Your task to perform on an android device: open app "Spotify" Image 0: 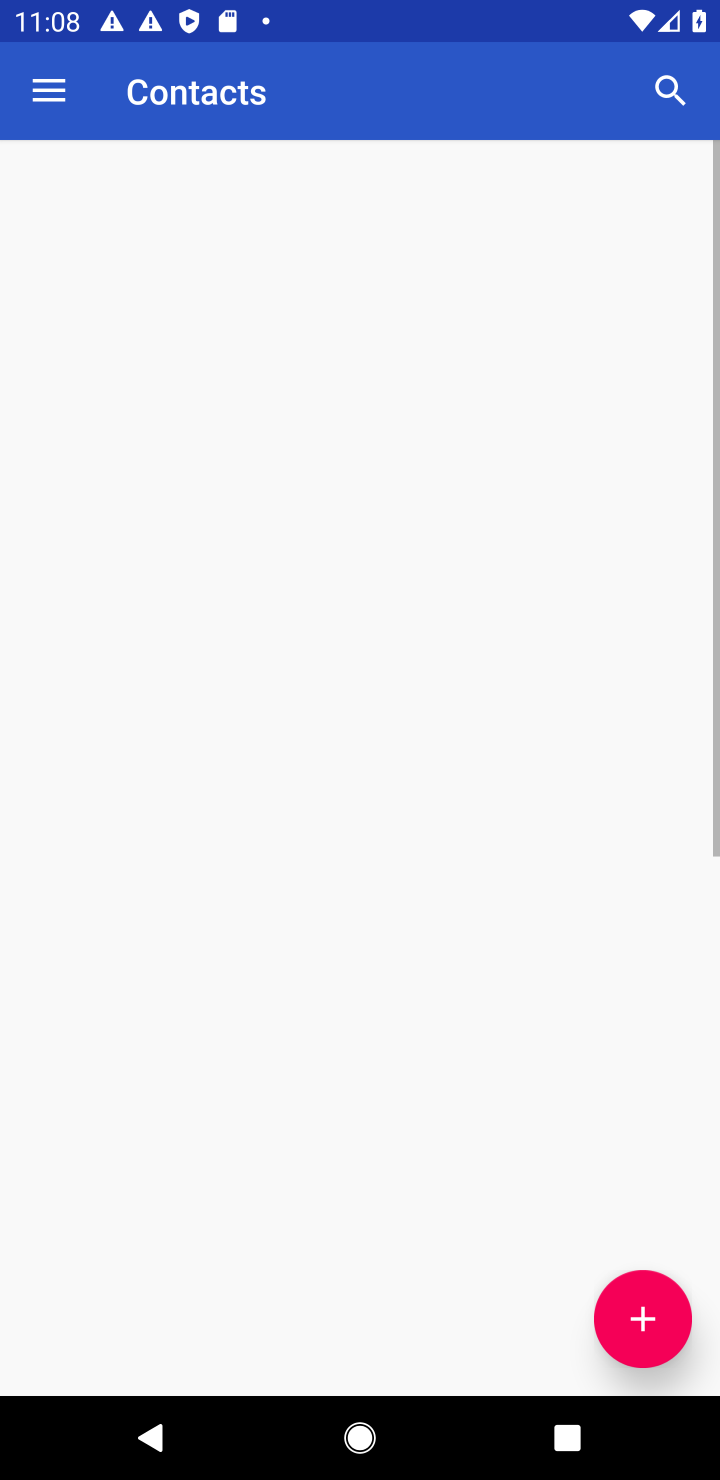
Step 0: press home button
Your task to perform on an android device: open app "Spotify" Image 1: 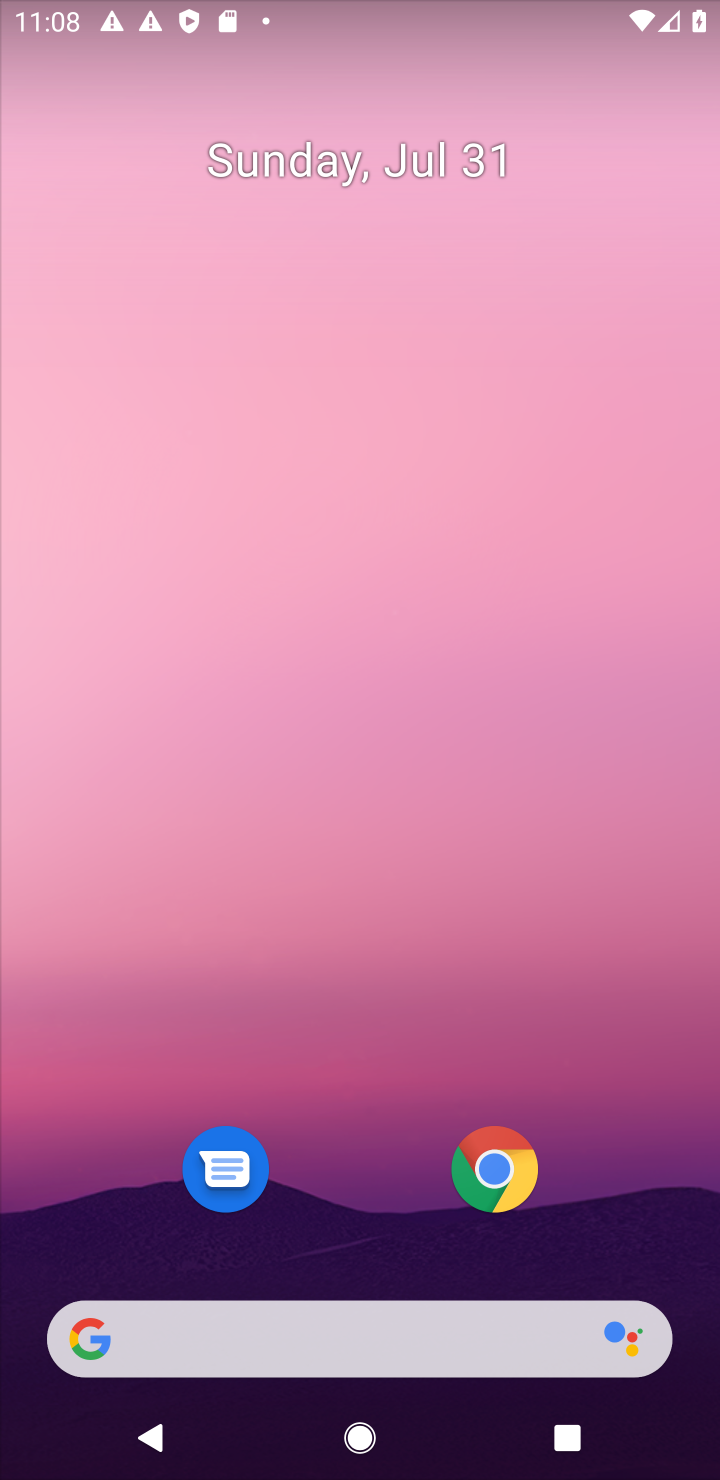
Step 1: drag from (352, 1327) to (349, 556)
Your task to perform on an android device: open app "Spotify" Image 2: 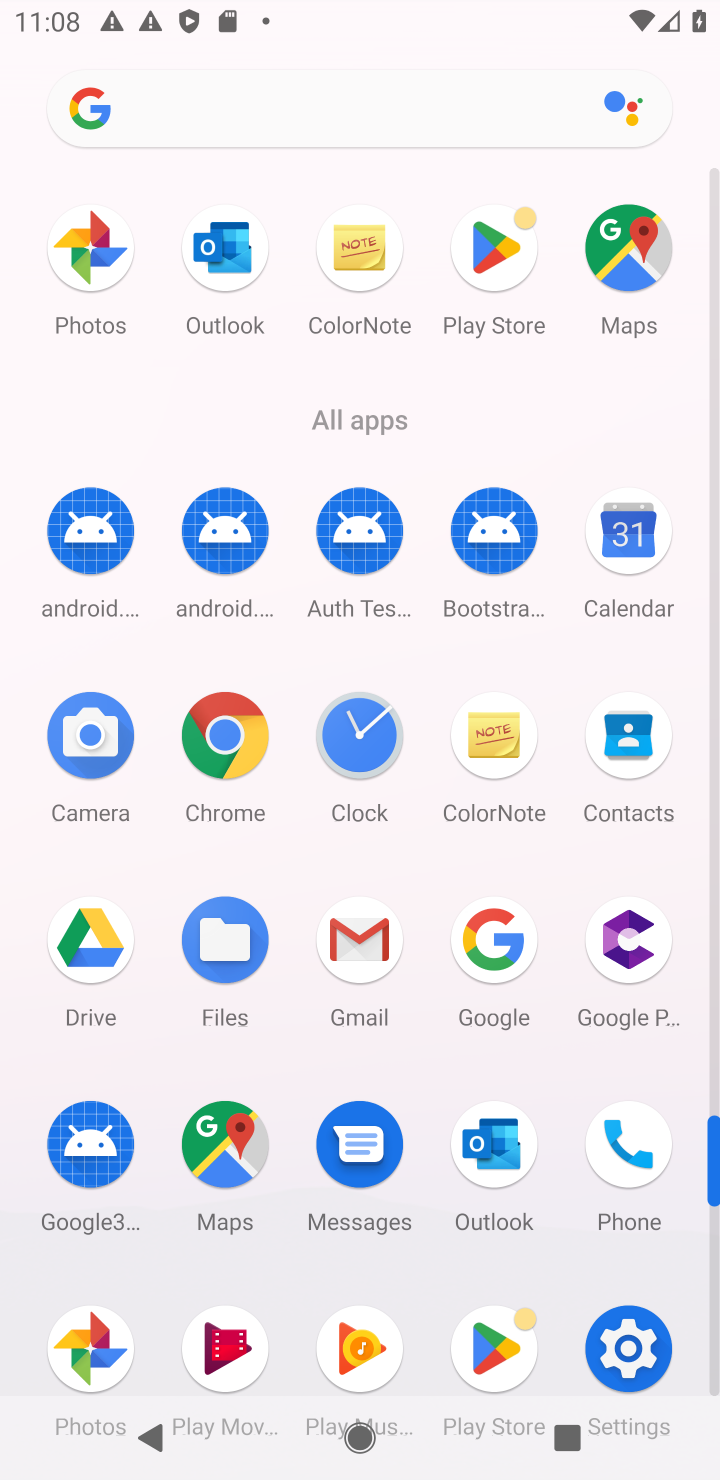
Step 2: click (482, 1343)
Your task to perform on an android device: open app "Spotify" Image 3: 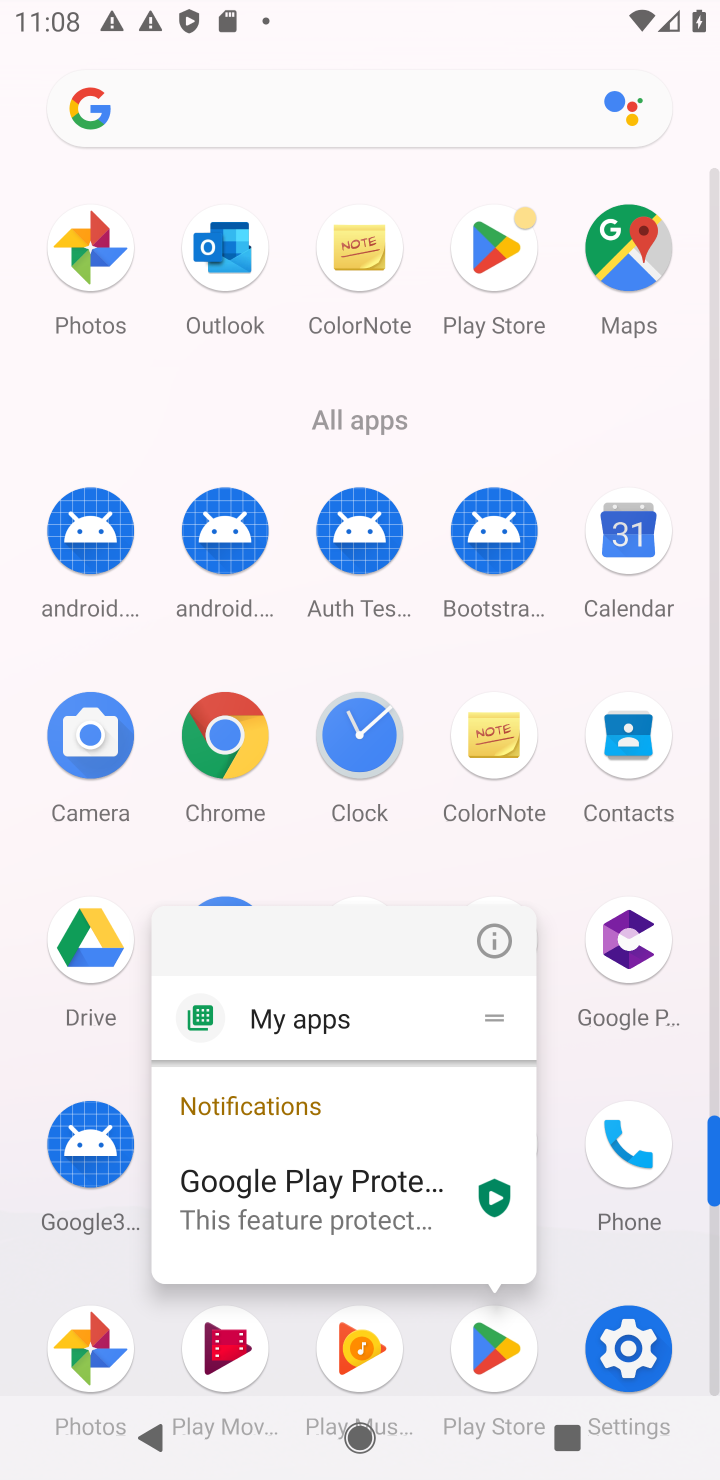
Step 3: click (492, 1343)
Your task to perform on an android device: open app "Spotify" Image 4: 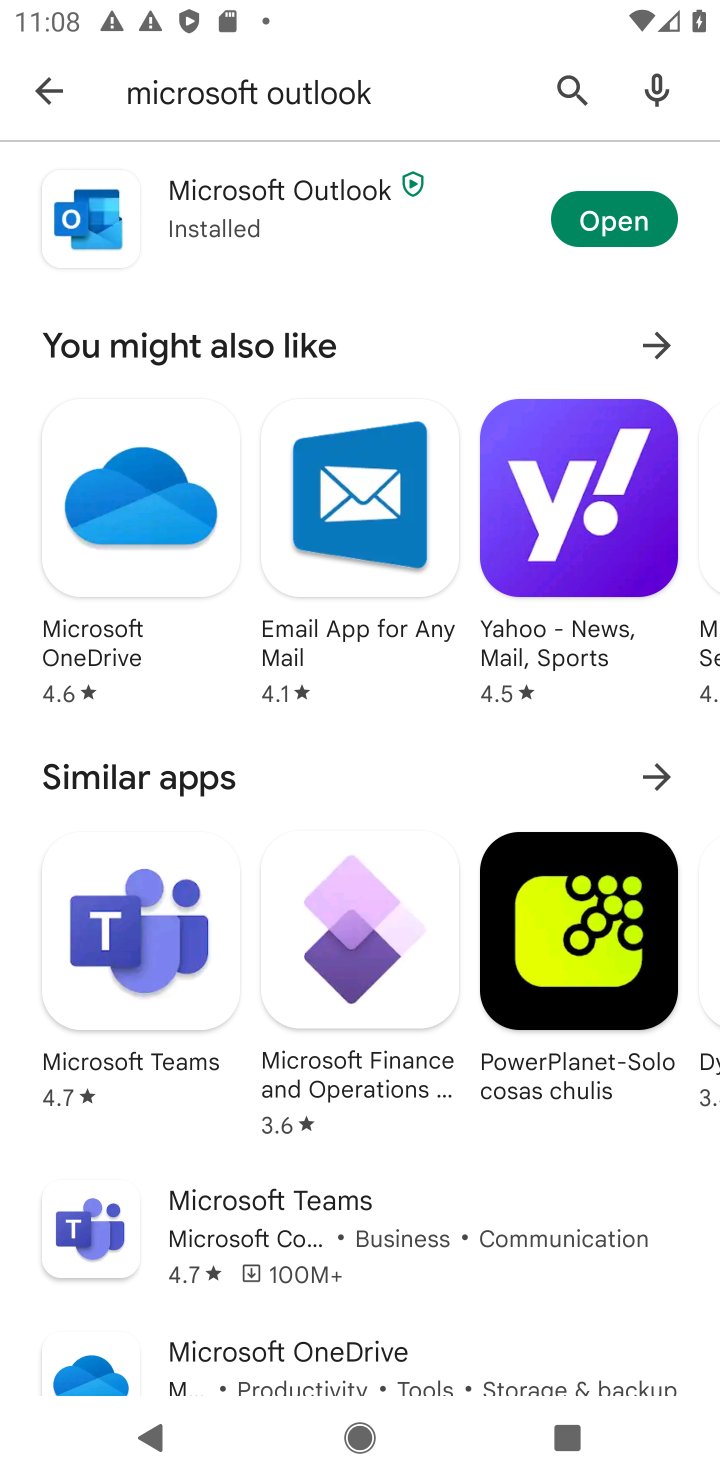
Step 4: click (47, 98)
Your task to perform on an android device: open app "Spotify" Image 5: 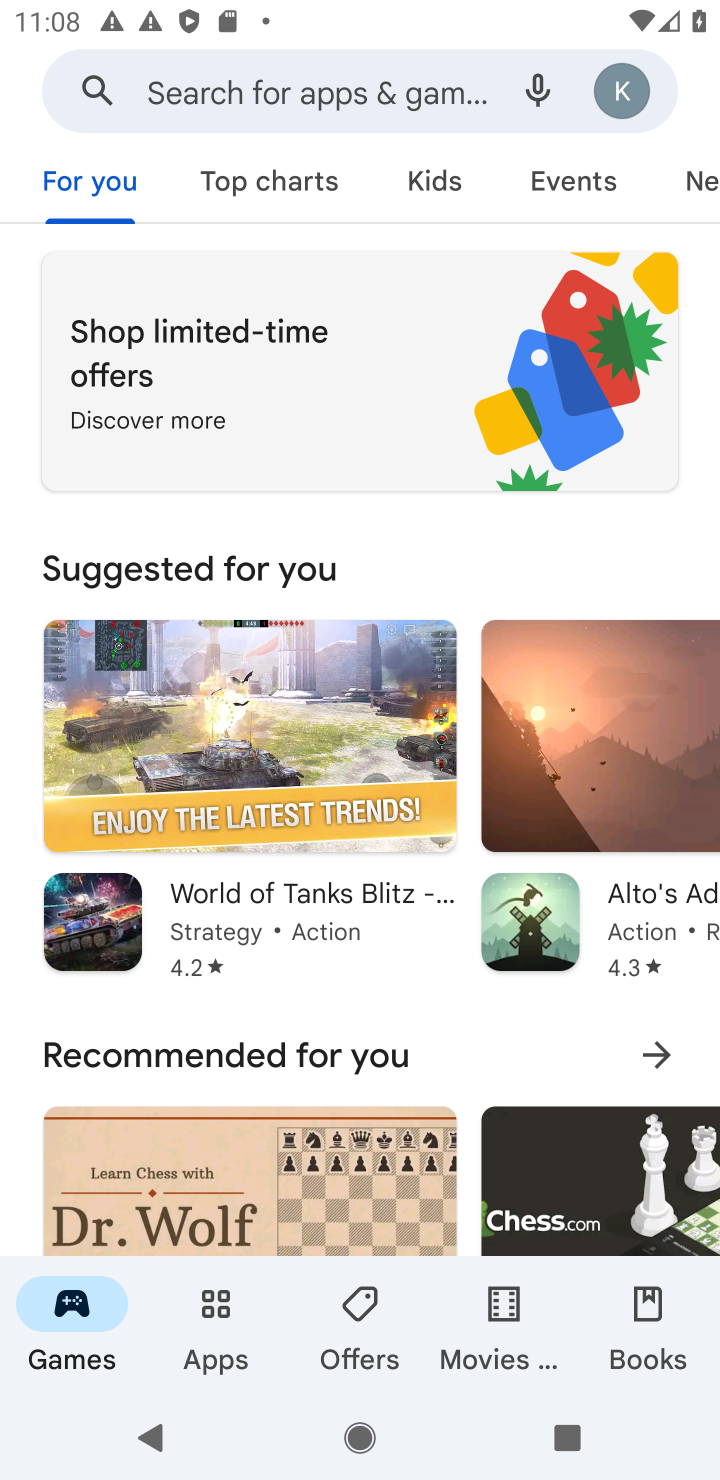
Step 5: click (368, 93)
Your task to perform on an android device: open app "Spotify" Image 6: 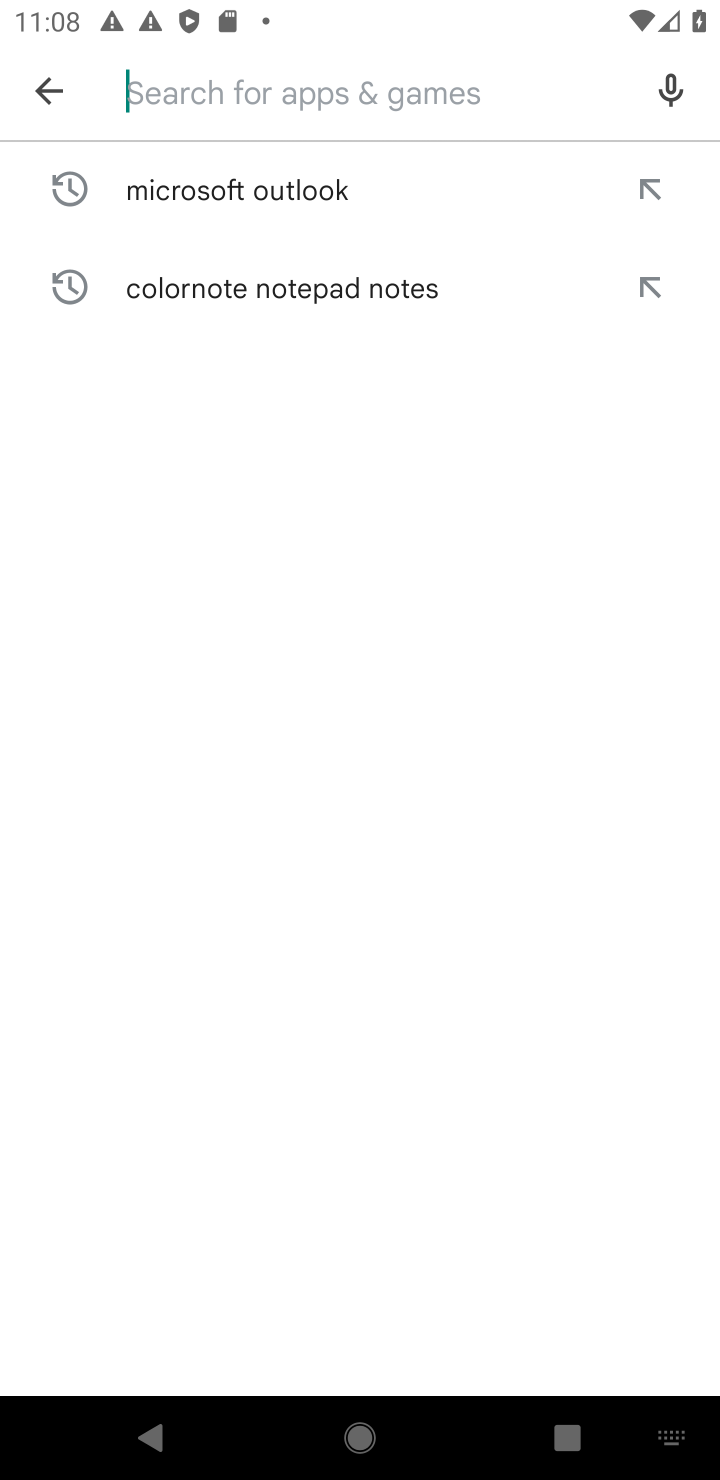
Step 6: type "Spotify"
Your task to perform on an android device: open app "Spotify" Image 7: 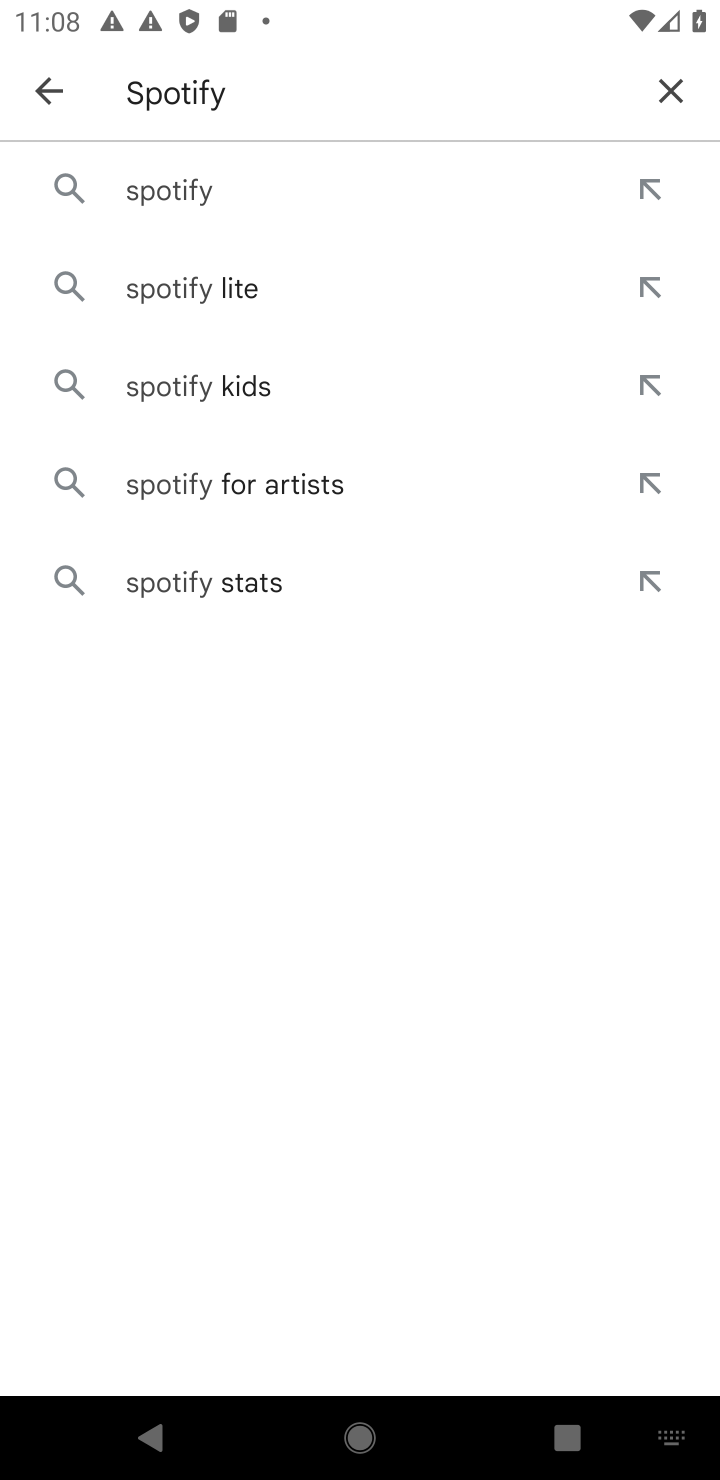
Step 7: click (195, 188)
Your task to perform on an android device: open app "Spotify" Image 8: 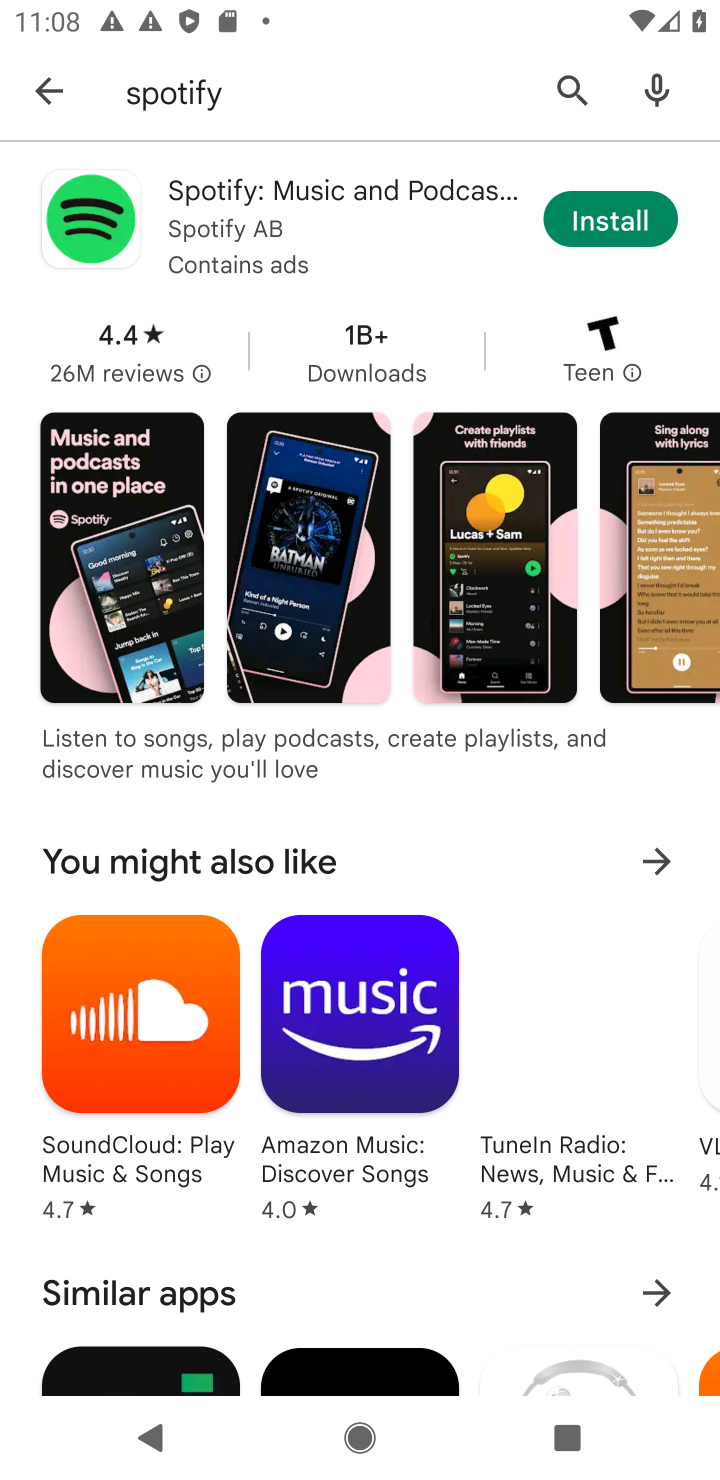
Step 8: click (633, 219)
Your task to perform on an android device: open app "Spotify" Image 9: 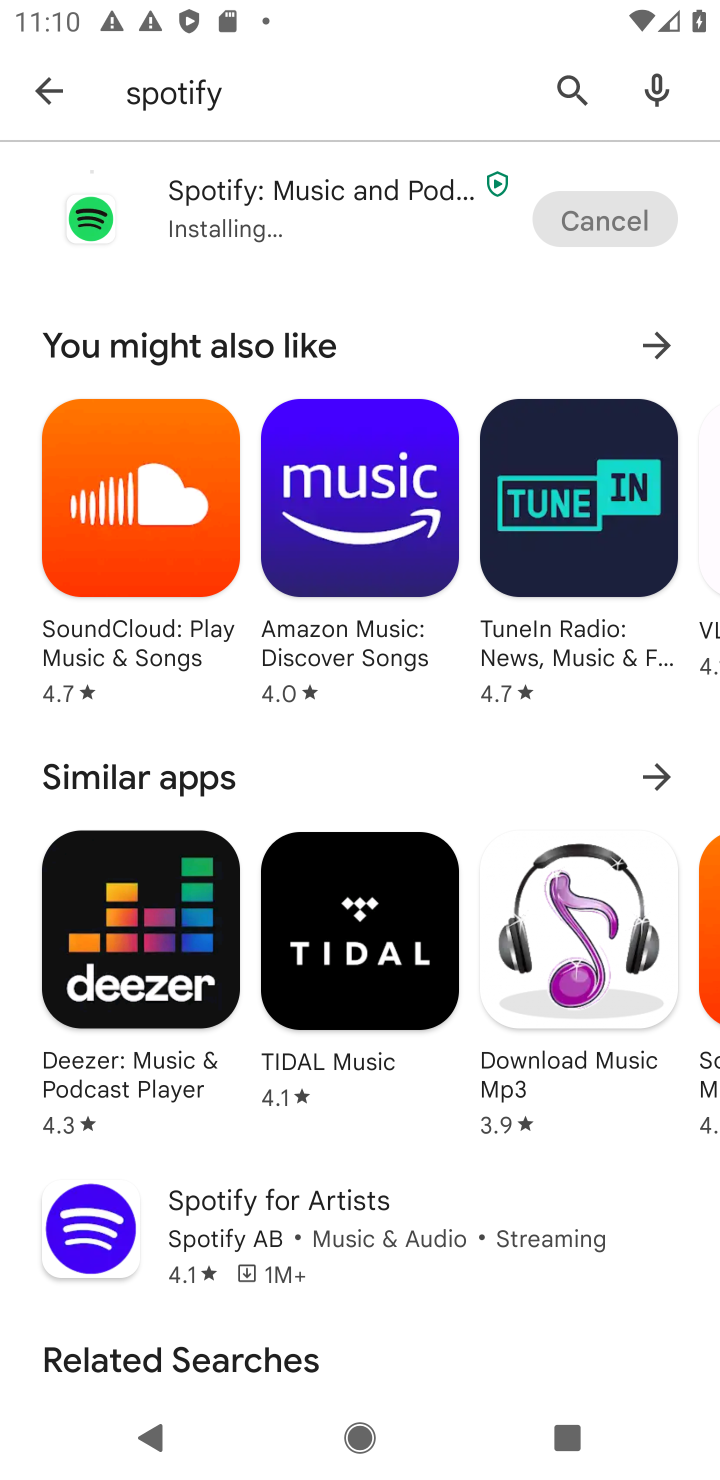
Step 9: task complete